Your task to perform on an android device: turn off data saver in the chrome app Image 0: 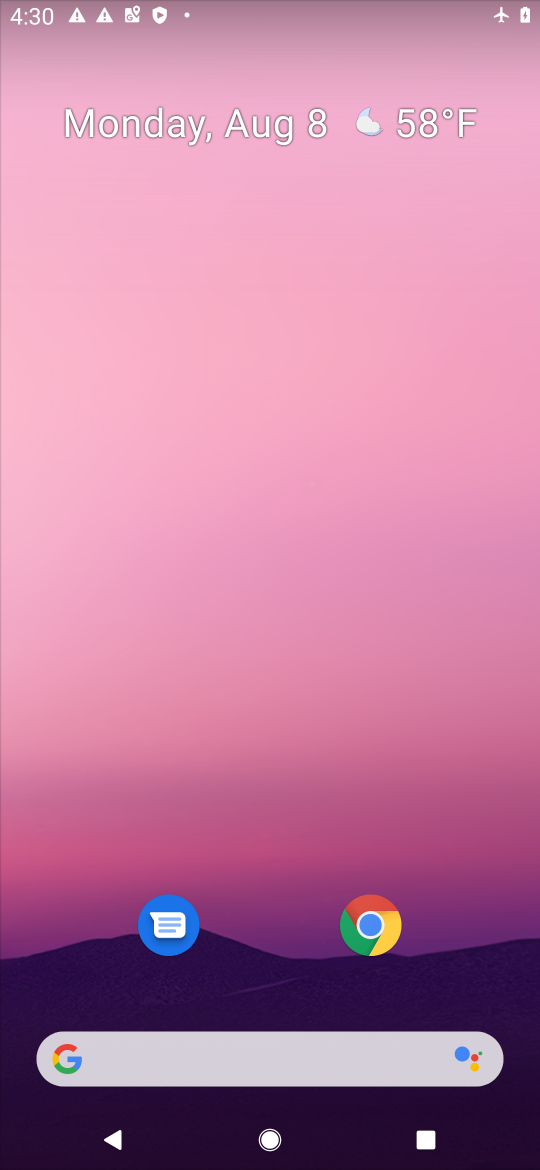
Step 0: click (375, 918)
Your task to perform on an android device: turn off data saver in the chrome app Image 1: 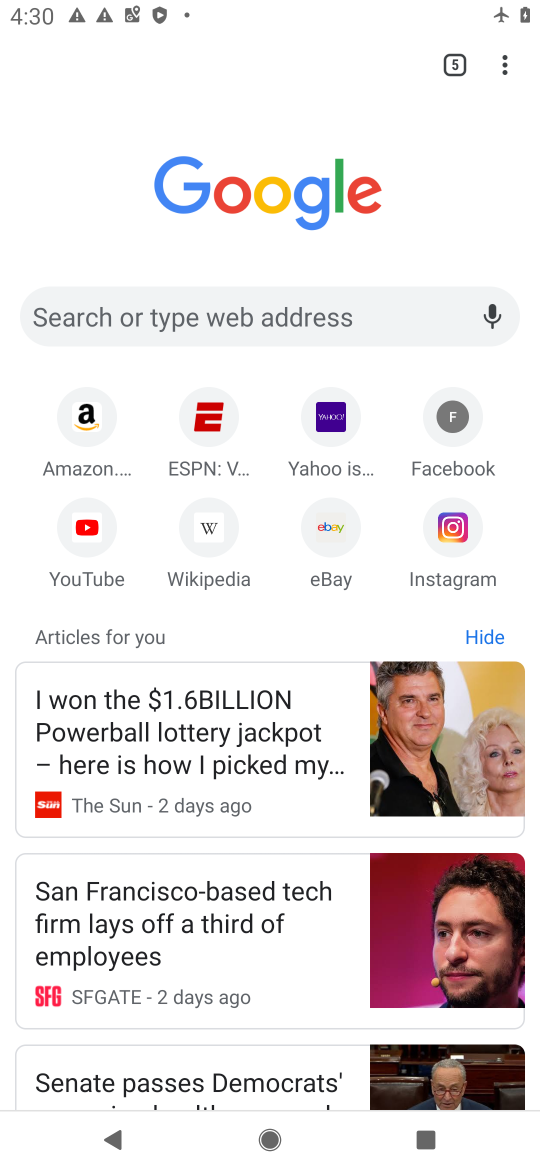
Step 1: drag from (507, 71) to (344, 539)
Your task to perform on an android device: turn off data saver in the chrome app Image 2: 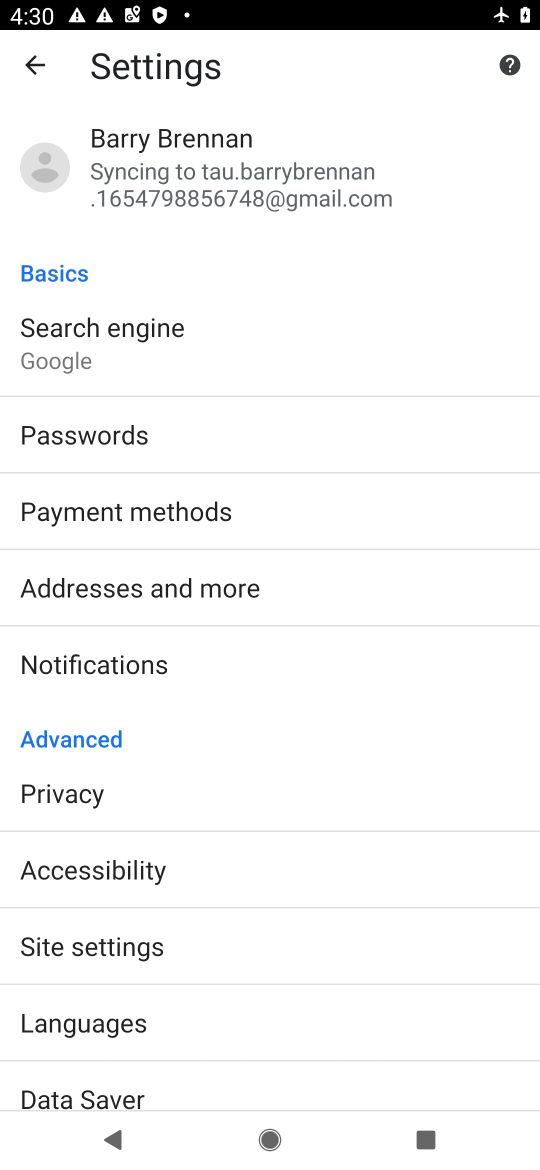
Step 2: click (134, 1090)
Your task to perform on an android device: turn off data saver in the chrome app Image 3: 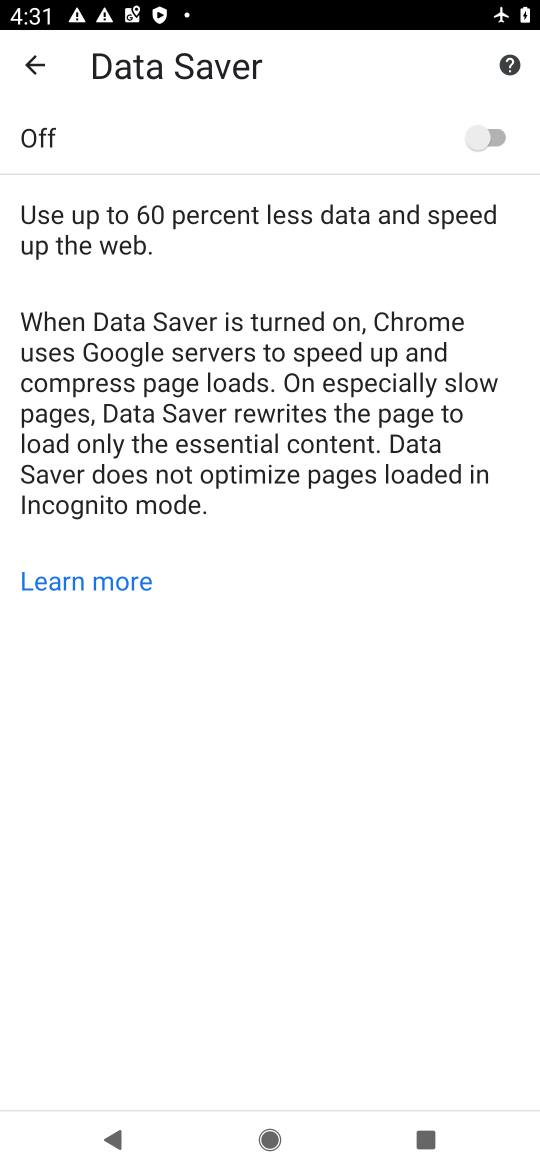
Step 3: task complete